Your task to perform on an android device: Go to calendar. Show me events next week Image 0: 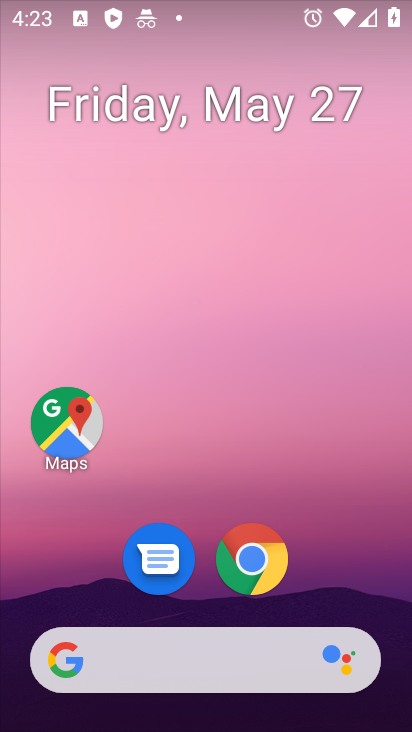
Step 0: drag from (310, 627) to (337, 25)
Your task to perform on an android device: Go to calendar. Show me events next week Image 1: 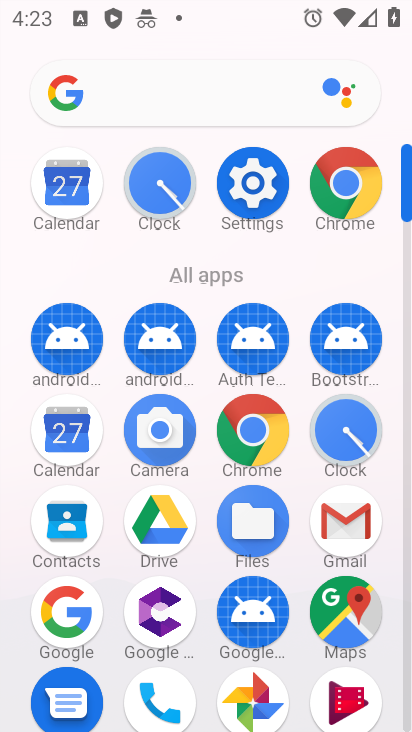
Step 1: click (72, 438)
Your task to perform on an android device: Go to calendar. Show me events next week Image 2: 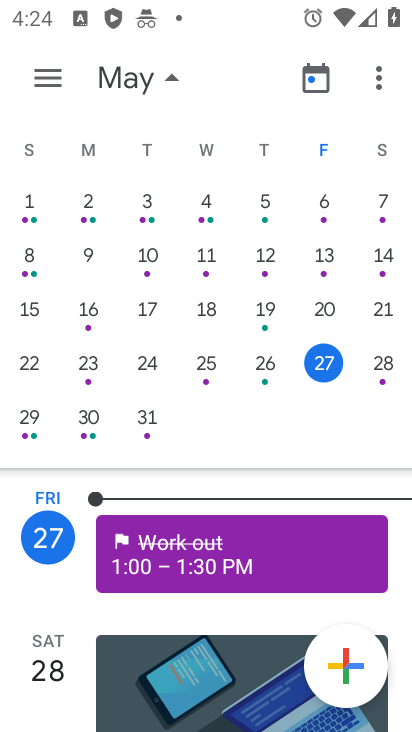
Step 2: click (392, 367)
Your task to perform on an android device: Go to calendar. Show me events next week Image 3: 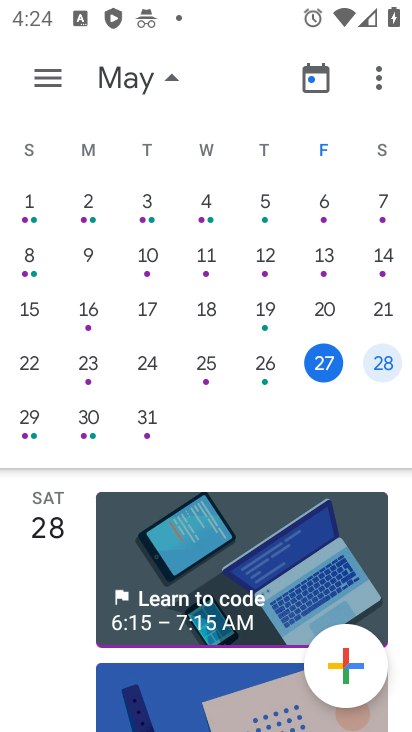
Step 3: task complete